Your task to perform on an android device: turn off wifi Image 0: 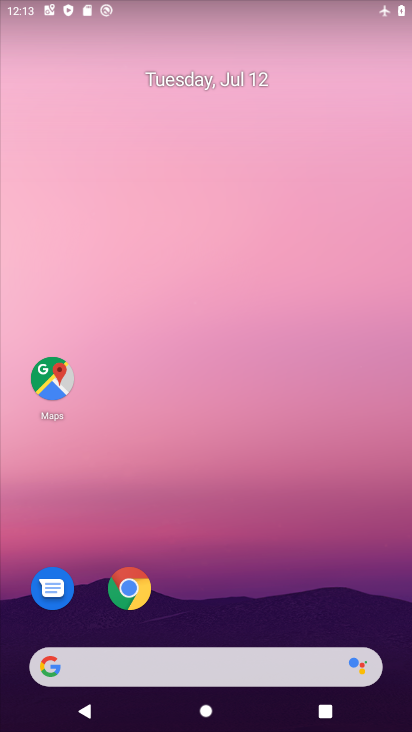
Step 0: drag from (340, 572) to (277, 95)
Your task to perform on an android device: turn off wifi Image 1: 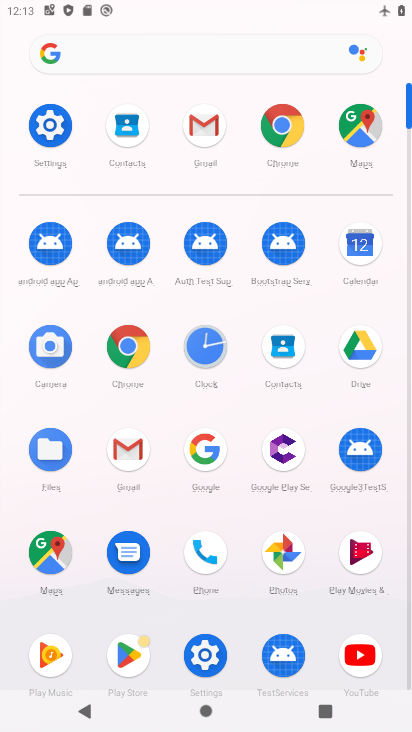
Step 1: click (56, 135)
Your task to perform on an android device: turn off wifi Image 2: 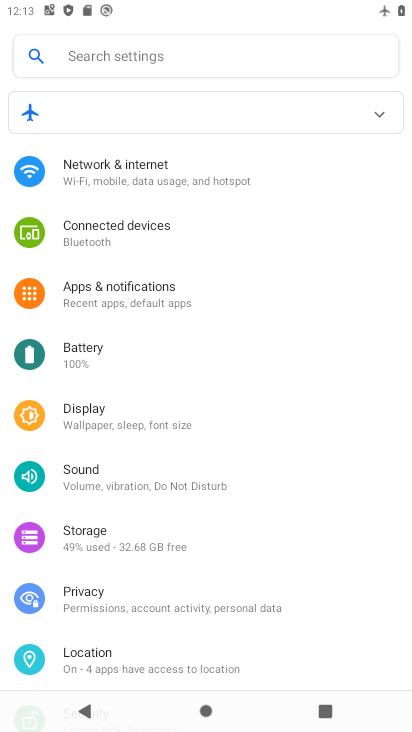
Step 2: click (103, 176)
Your task to perform on an android device: turn off wifi Image 3: 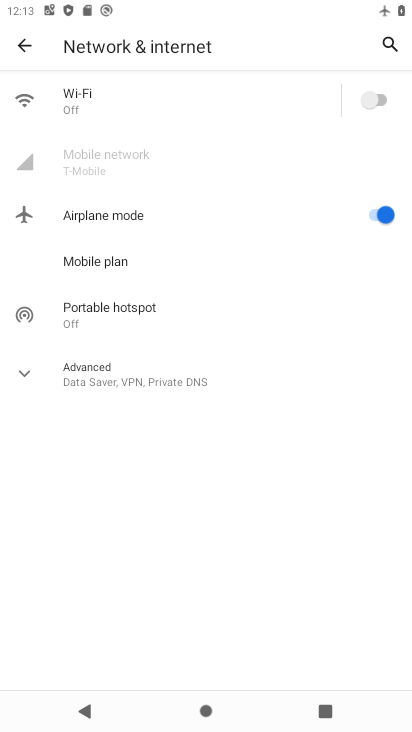
Step 3: task complete